Your task to perform on an android device: open app "Lyft - Rideshare, Bikes, Scooters & Transit" (install if not already installed) and go to login screen Image 0: 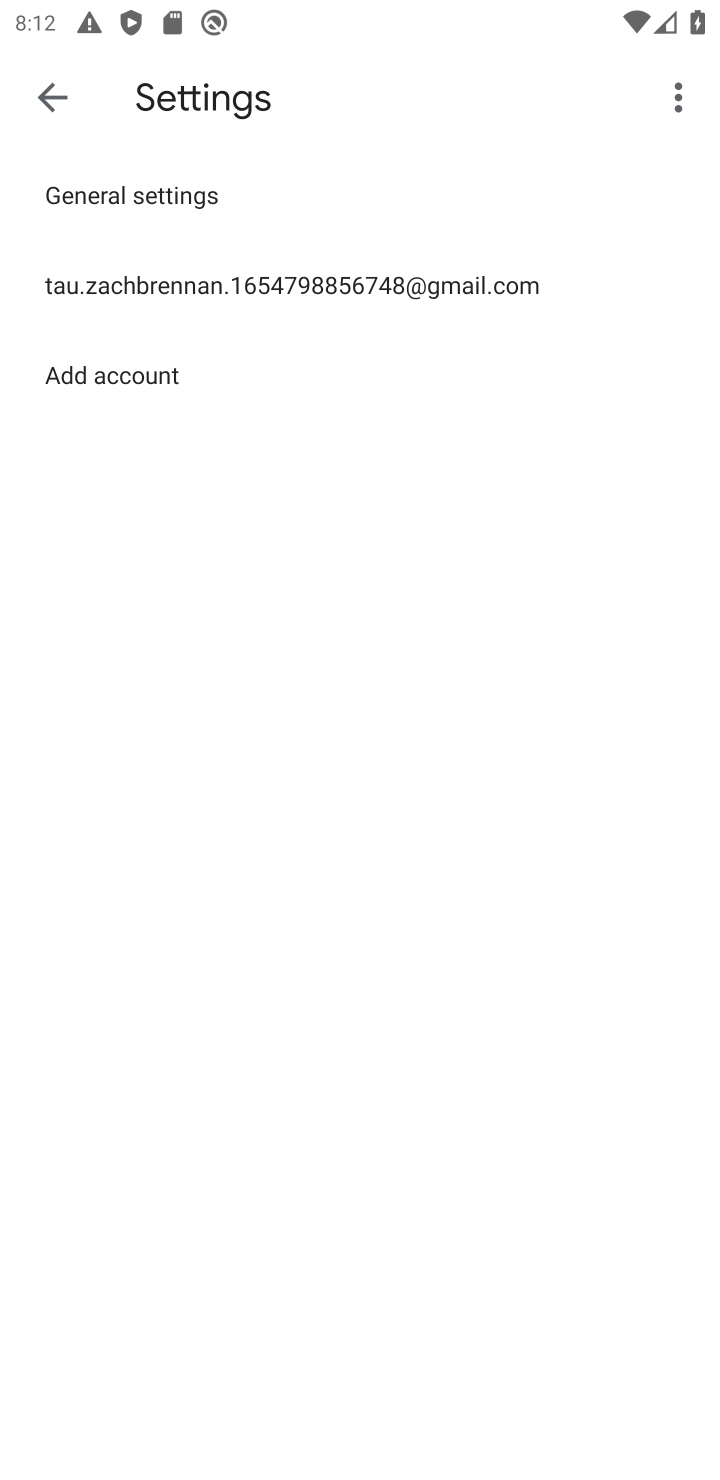
Step 0: press home button
Your task to perform on an android device: open app "Lyft - Rideshare, Bikes, Scooters & Transit" (install if not already installed) and go to login screen Image 1: 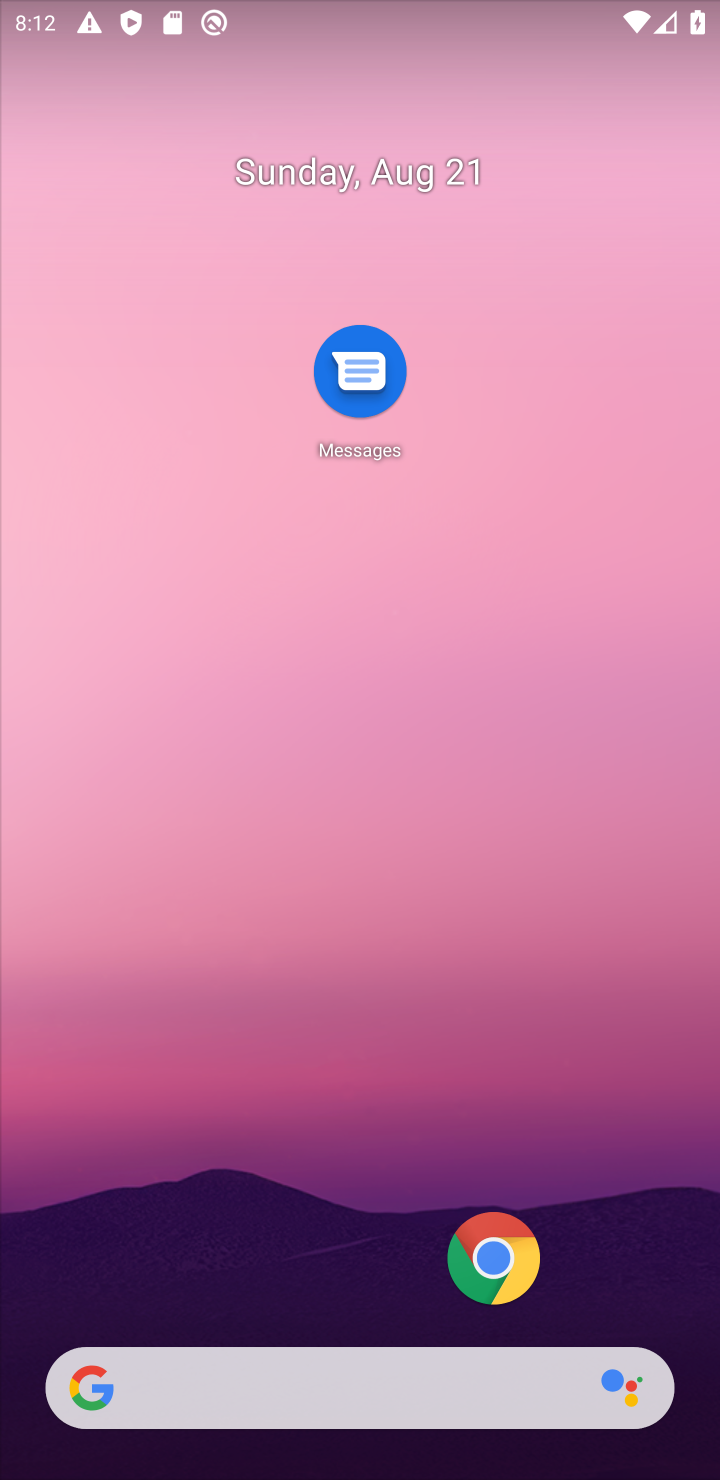
Step 1: drag from (202, 1355) to (317, 0)
Your task to perform on an android device: open app "Lyft - Rideshare, Bikes, Scooters & Transit" (install if not already installed) and go to login screen Image 2: 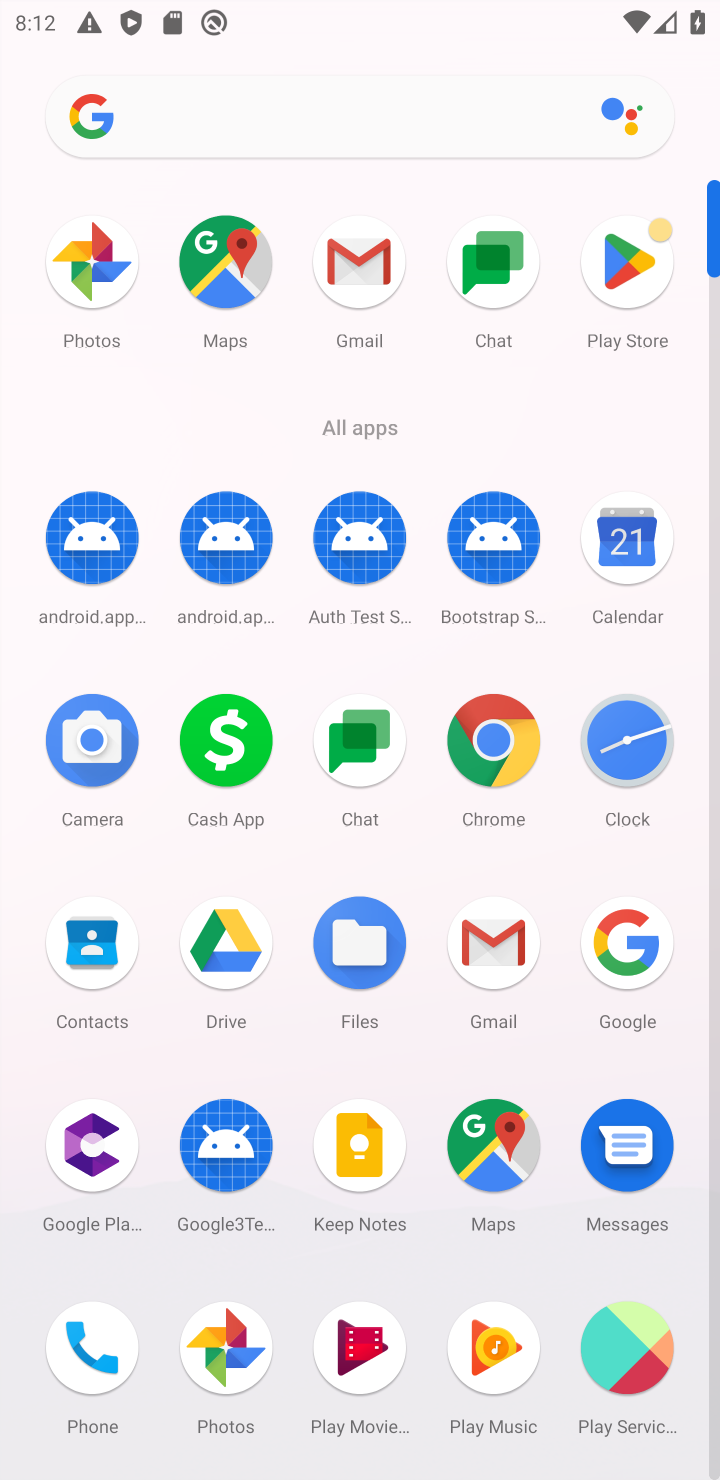
Step 2: click (629, 281)
Your task to perform on an android device: open app "Lyft - Rideshare, Bikes, Scooters & Transit" (install if not already installed) and go to login screen Image 3: 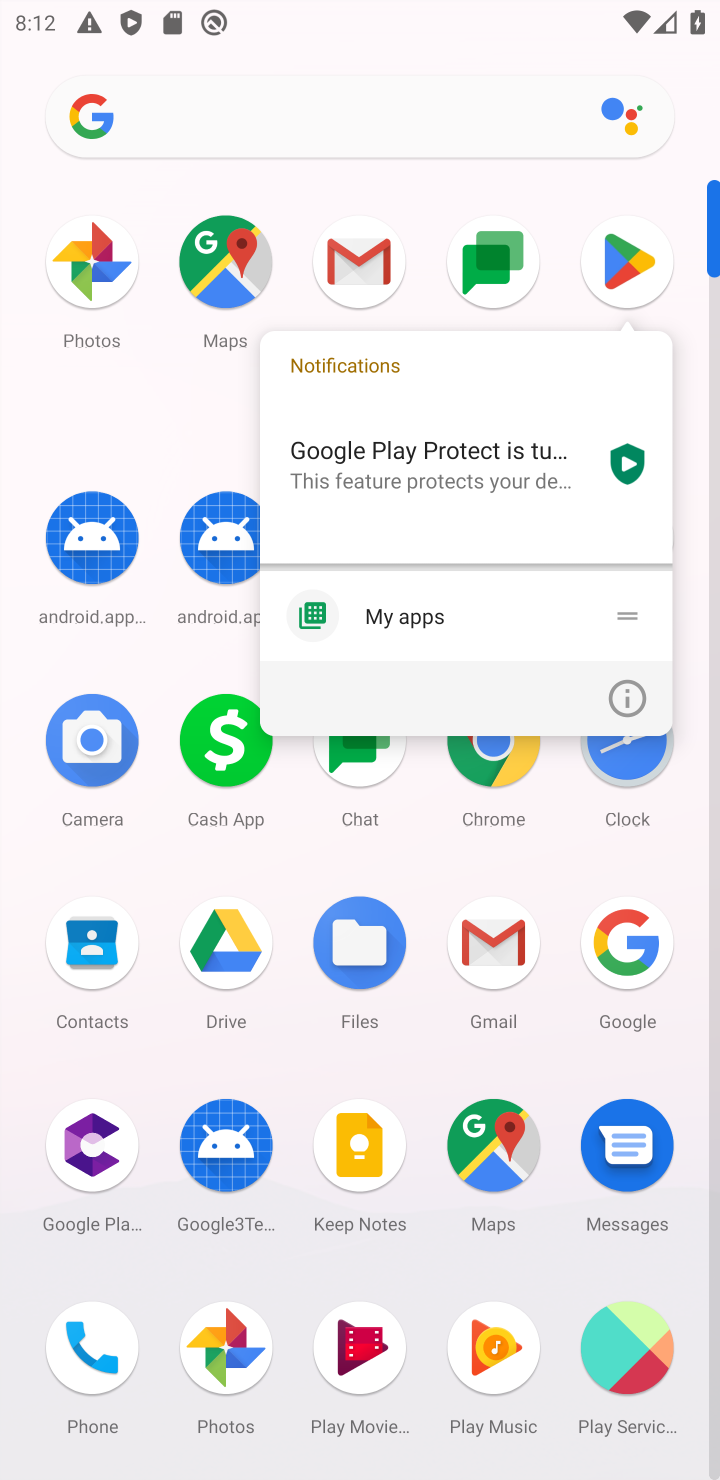
Step 3: click (618, 269)
Your task to perform on an android device: open app "Lyft - Rideshare, Bikes, Scooters & Transit" (install if not already installed) and go to login screen Image 4: 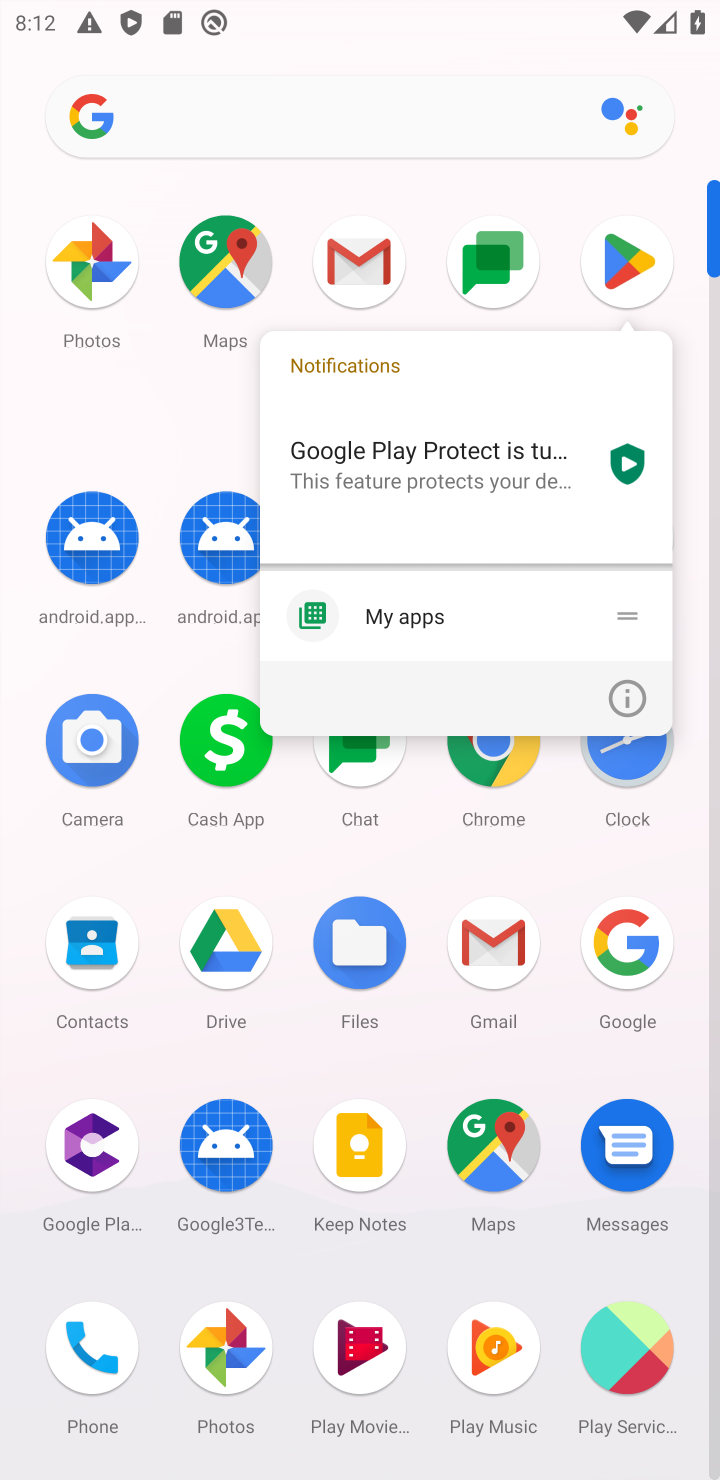
Step 4: click (618, 269)
Your task to perform on an android device: open app "Lyft - Rideshare, Bikes, Scooters & Transit" (install if not already installed) and go to login screen Image 5: 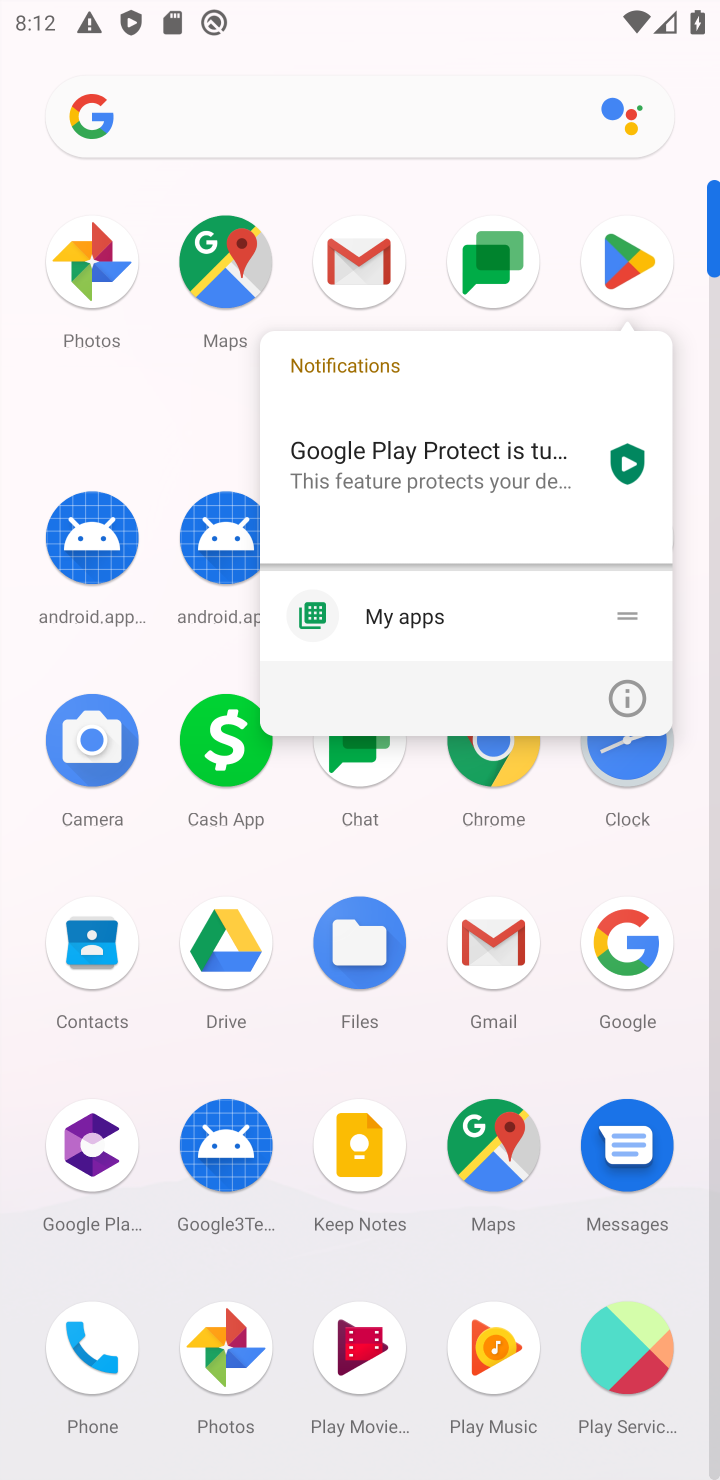
Step 5: click (618, 270)
Your task to perform on an android device: open app "Lyft - Rideshare, Bikes, Scooters & Transit" (install if not already installed) and go to login screen Image 6: 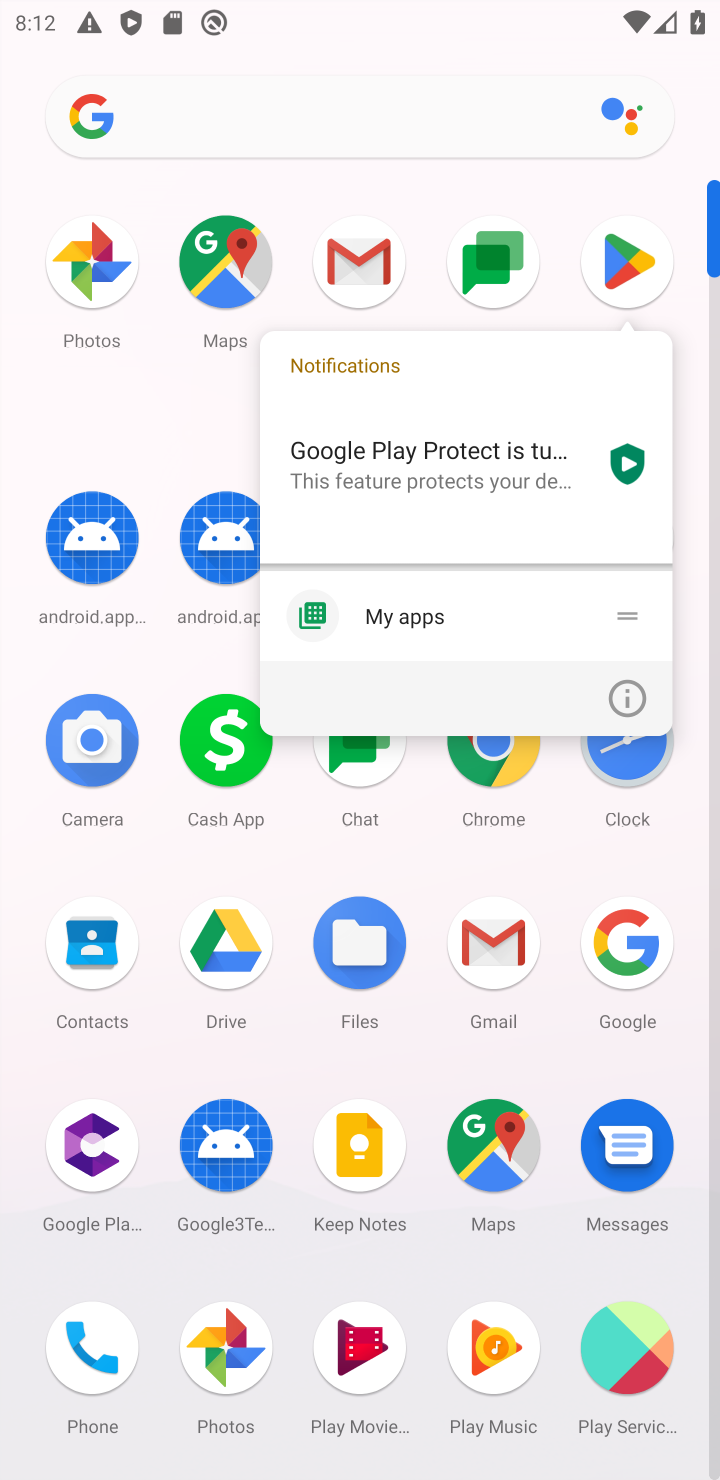
Step 6: click (618, 272)
Your task to perform on an android device: open app "Lyft - Rideshare, Bikes, Scooters & Transit" (install if not already installed) and go to login screen Image 7: 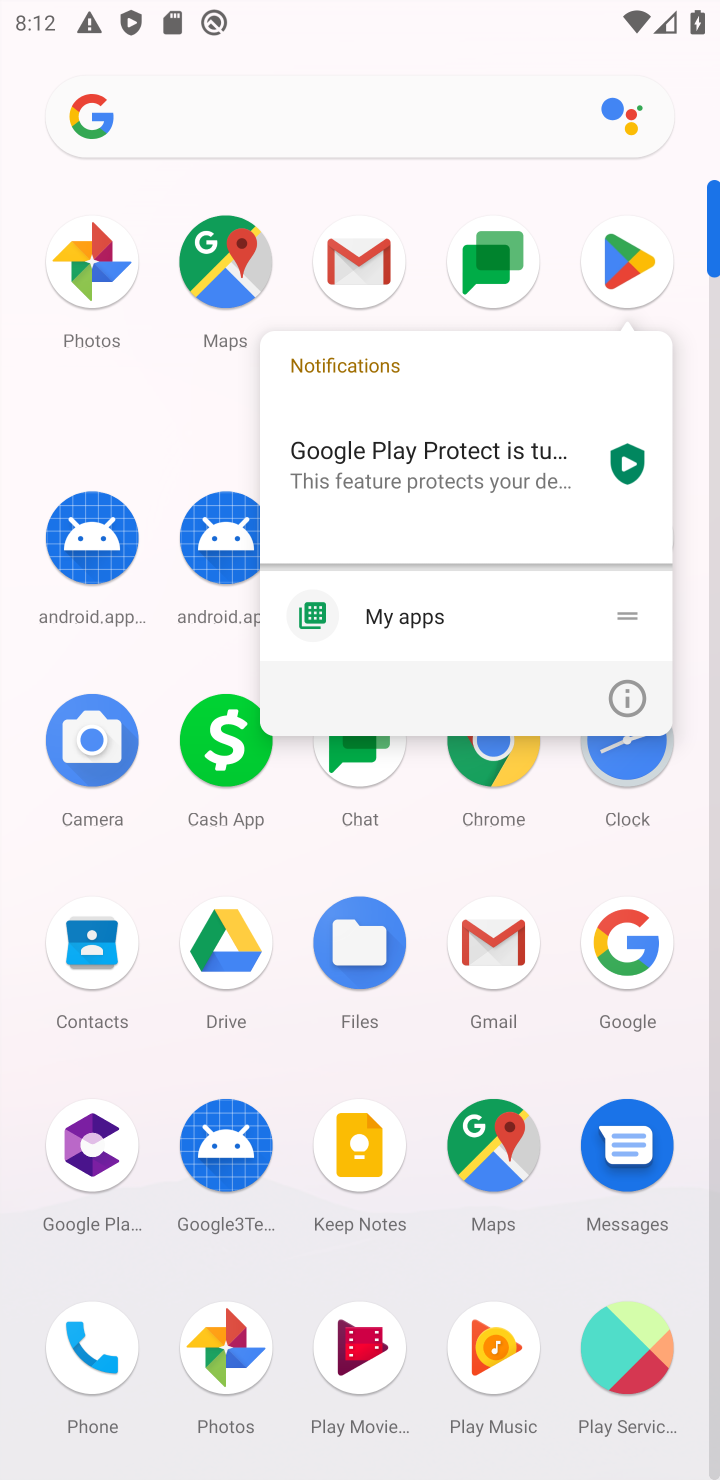
Step 7: click (618, 272)
Your task to perform on an android device: open app "Lyft - Rideshare, Bikes, Scooters & Transit" (install if not already installed) and go to login screen Image 8: 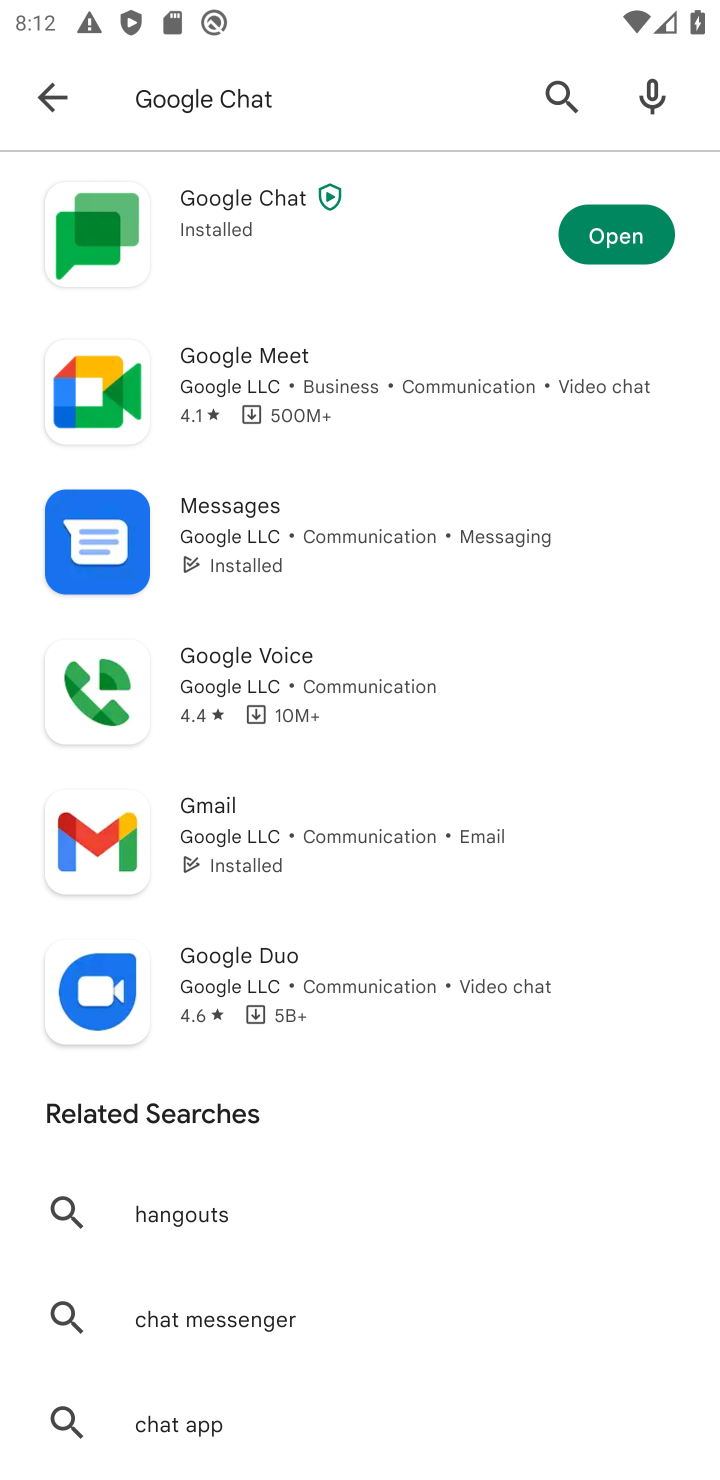
Step 8: press back button
Your task to perform on an android device: open app "Lyft - Rideshare, Bikes, Scooters & Transit" (install if not already installed) and go to login screen Image 9: 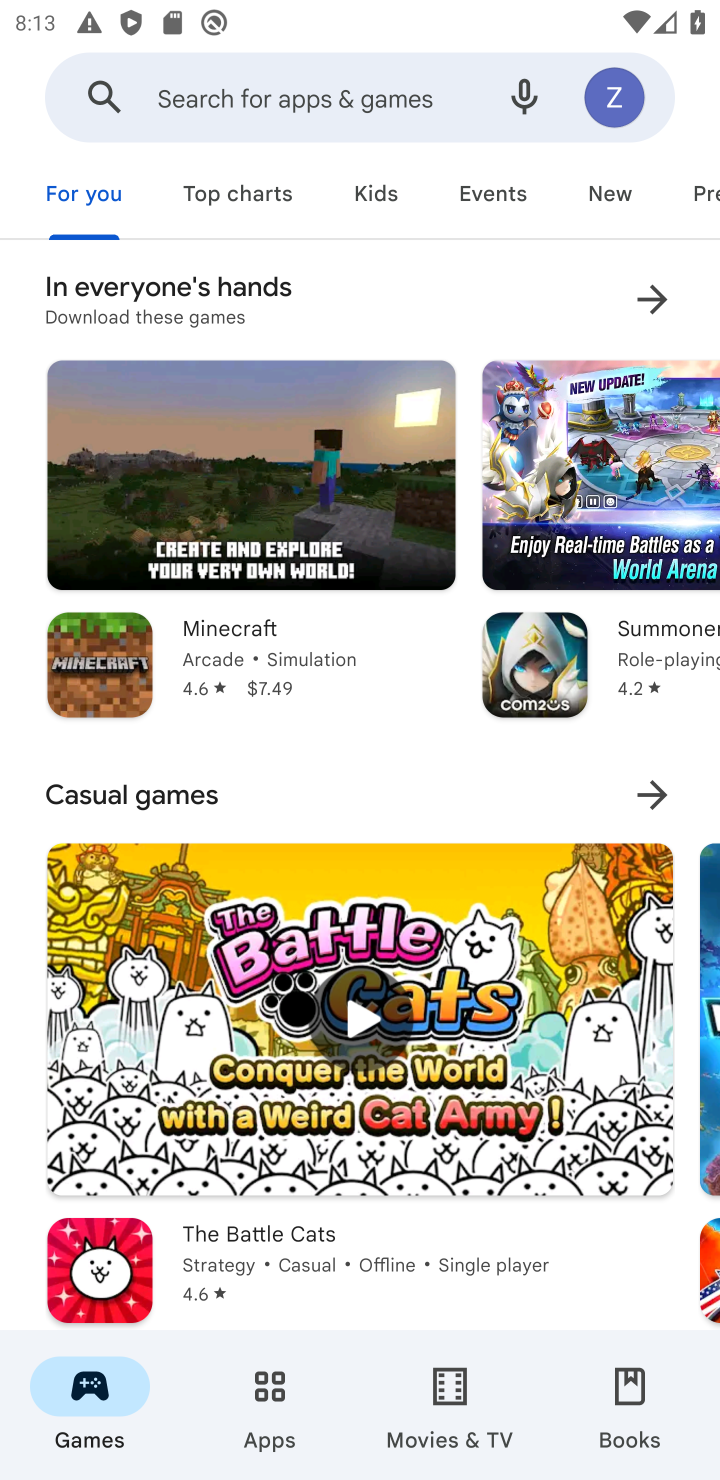
Step 9: click (140, 112)
Your task to perform on an android device: open app "Lyft - Rideshare, Bikes, Scooters & Transit" (install if not already installed) and go to login screen Image 10: 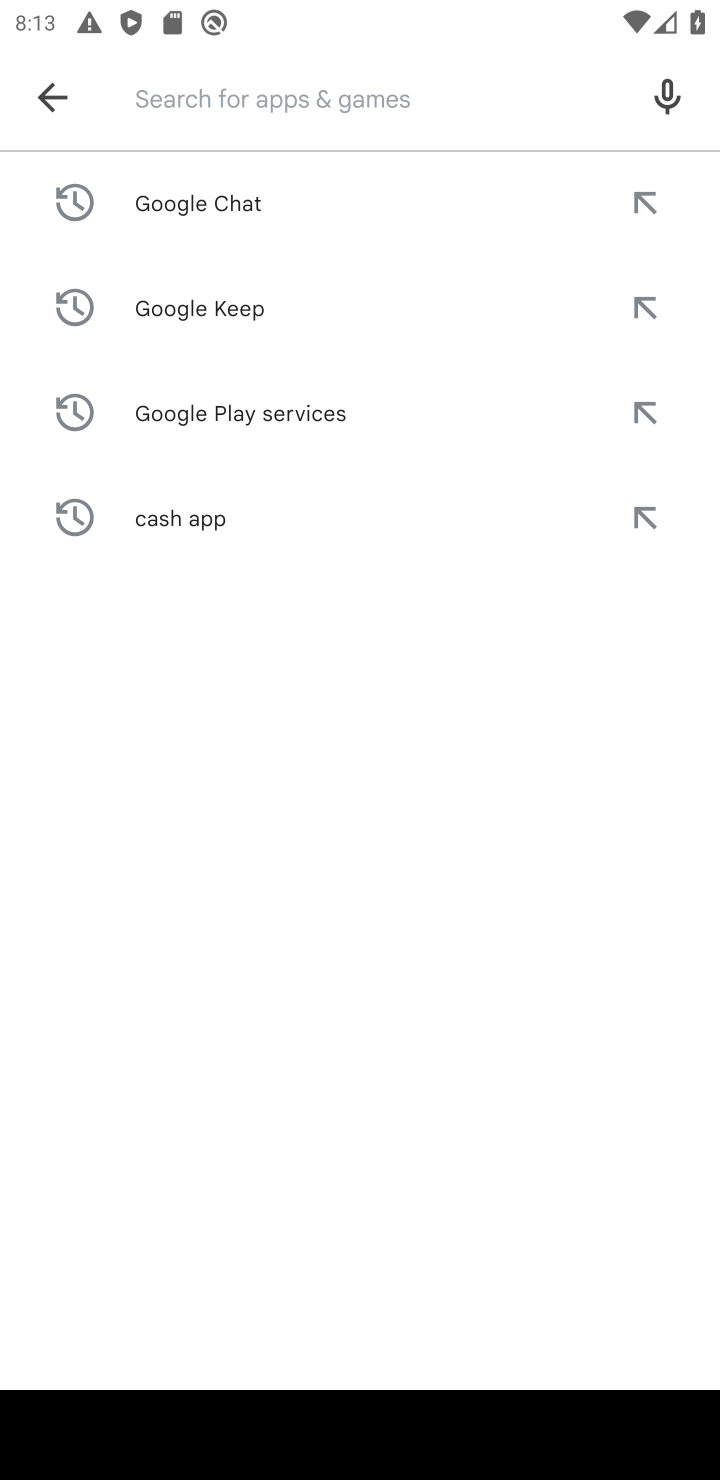
Step 10: type "Lyft - Rideshare, Bikes, Scooters & Transit"
Your task to perform on an android device: open app "Lyft - Rideshare, Bikes, Scooters & Transit" (install if not already installed) and go to login screen Image 11: 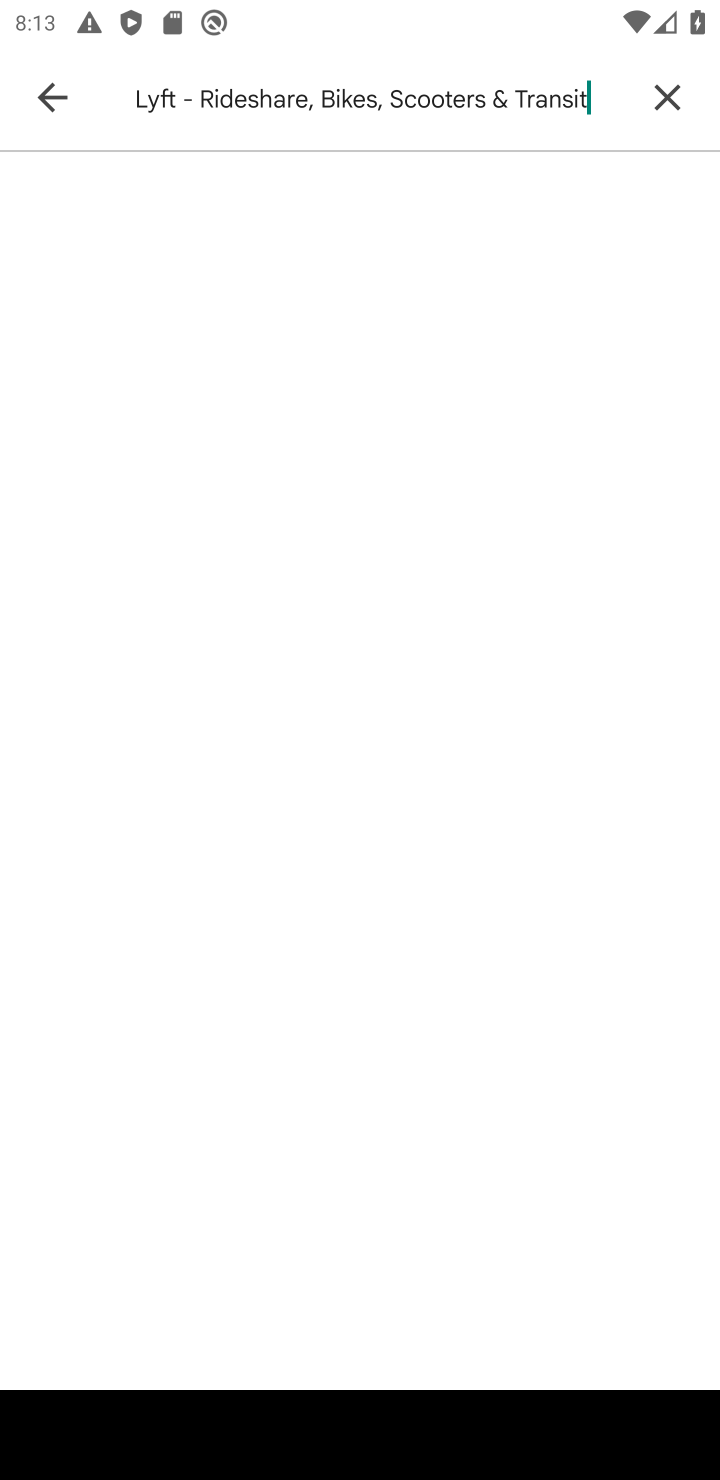
Step 11: press enter
Your task to perform on an android device: open app "Lyft - Rideshare, Bikes, Scooters & Transit" (install if not already installed) and go to login screen Image 12: 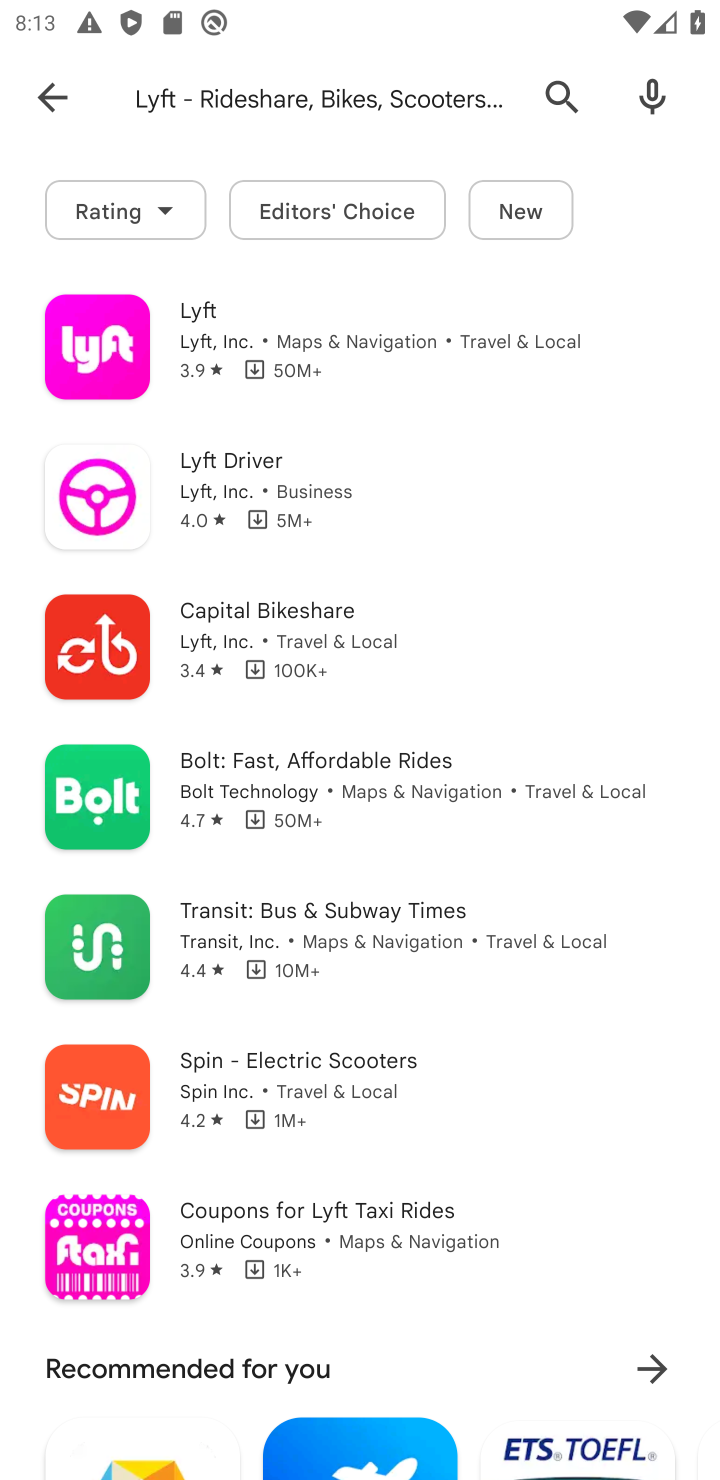
Step 12: click (261, 370)
Your task to perform on an android device: open app "Lyft - Rideshare, Bikes, Scooters & Transit" (install if not already installed) and go to login screen Image 13: 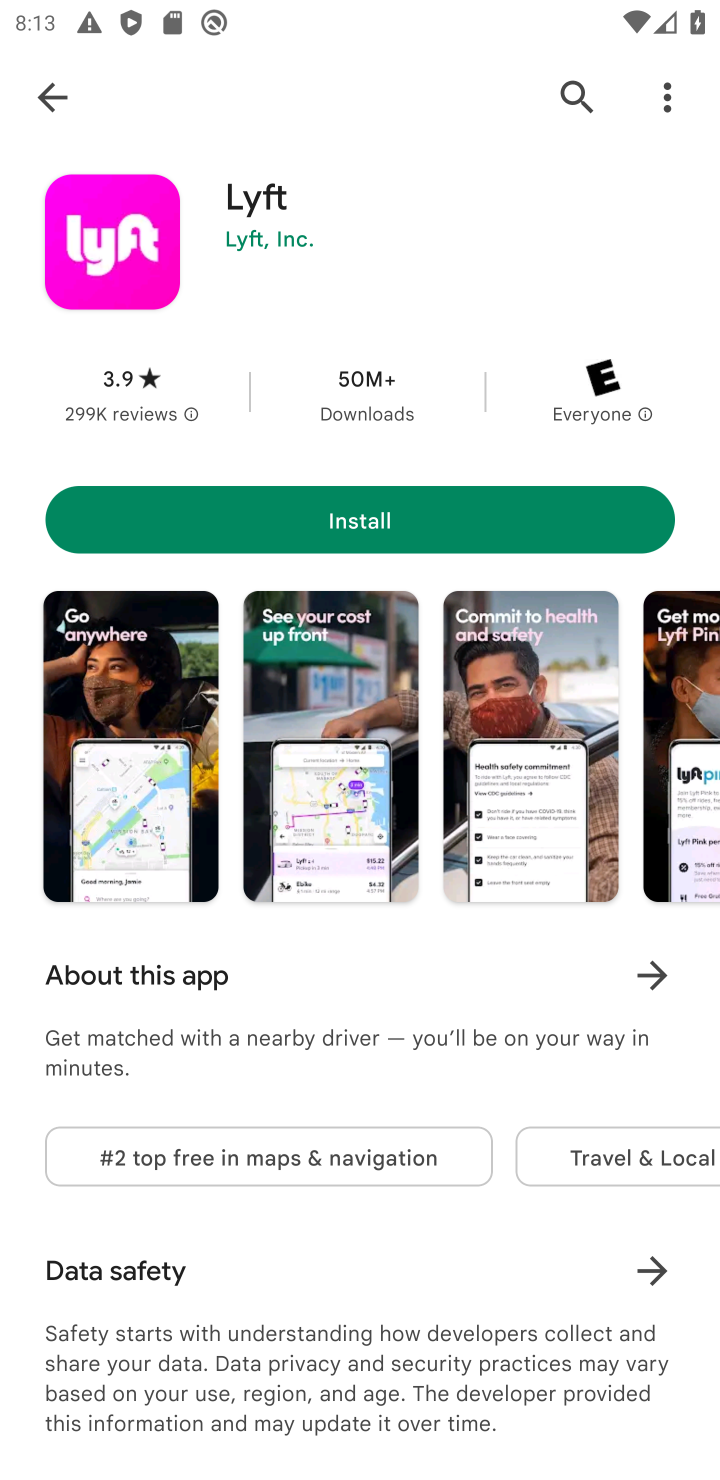
Step 13: click (405, 533)
Your task to perform on an android device: open app "Lyft - Rideshare, Bikes, Scooters & Transit" (install if not already installed) and go to login screen Image 14: 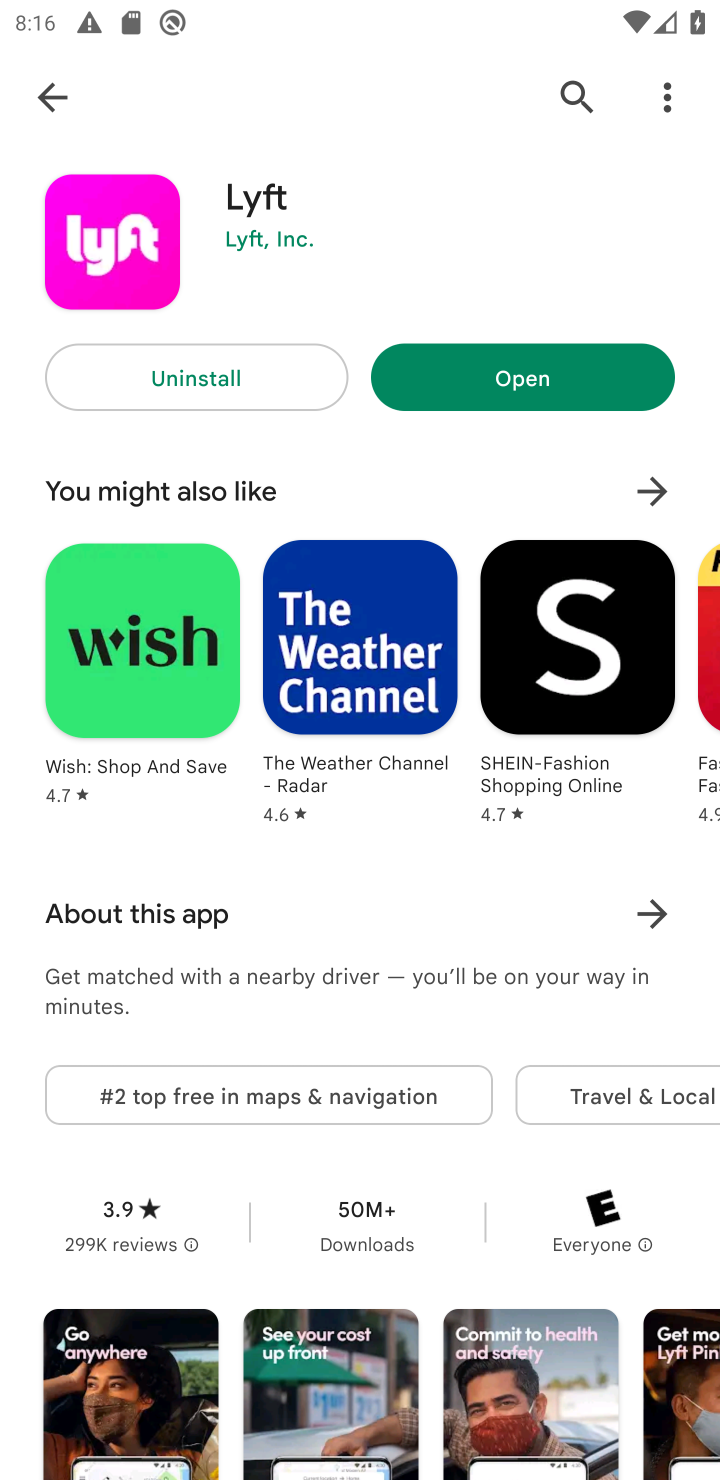
Step 14: click (510, 377)
Your task to perform on an android device: open app "Lyft - Rideshare, Bikes, Scooters & Transit" (install if not already installed) and go to login screen Image 15: 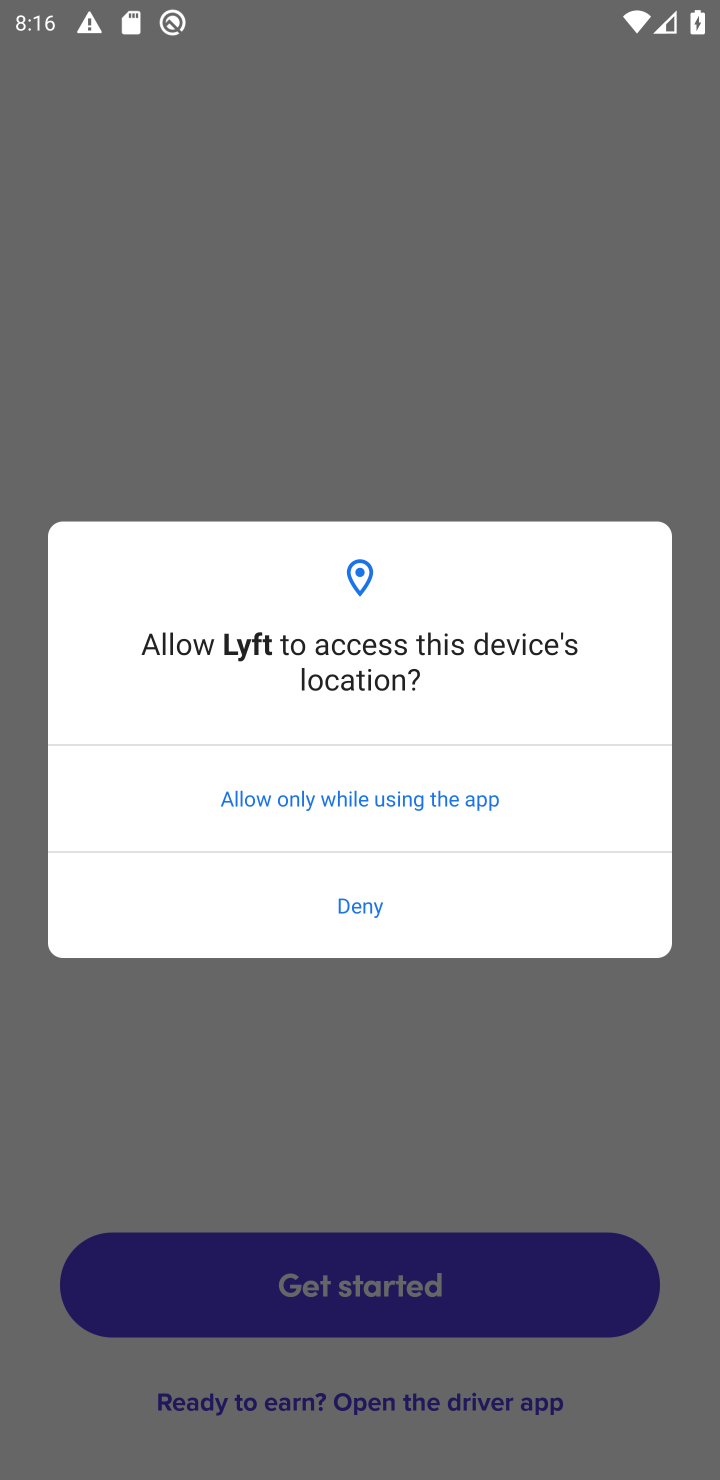
Step 15: click (322, 809)
Your task to perform on an android device: open app "Lyft - Rideshare, Bikes, Scooters & Transit" (install if not already installed) and go to login screen Image 16: 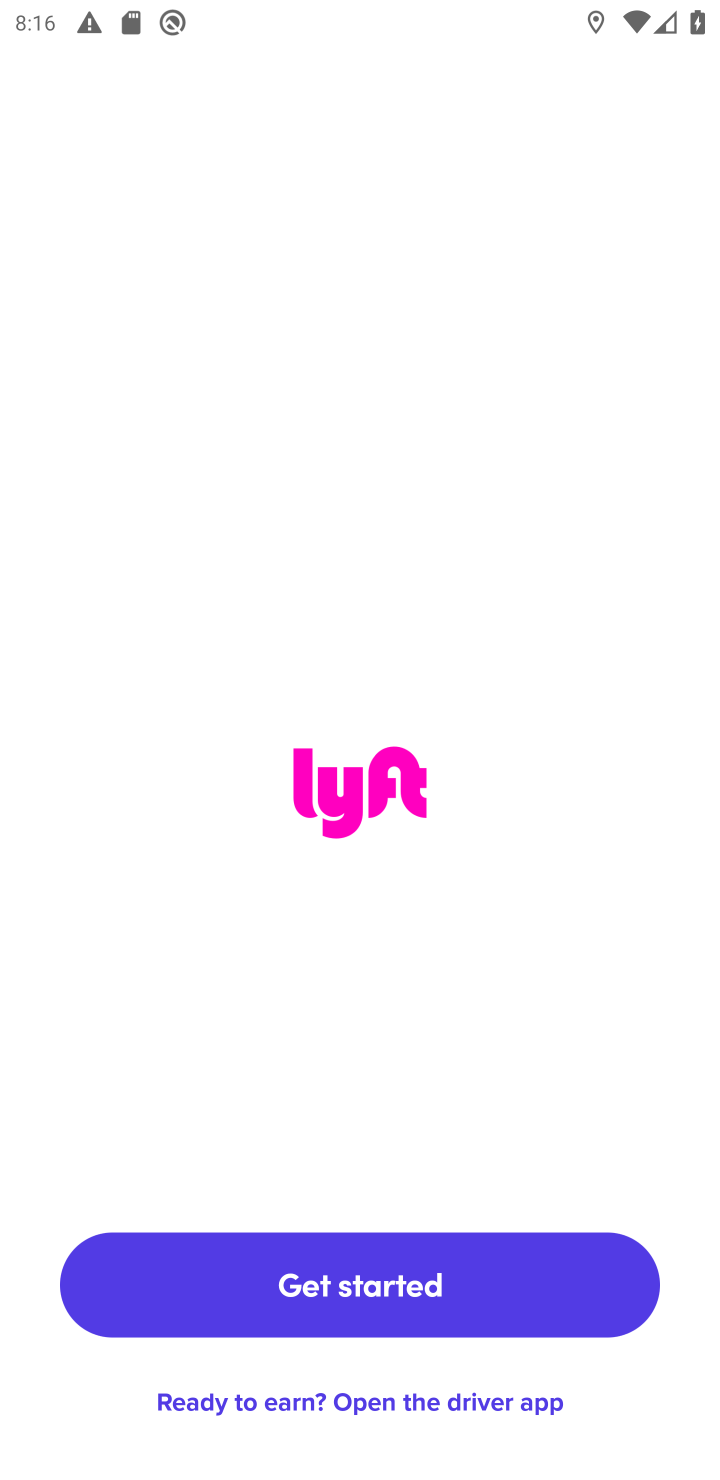
Step 16: click (383, 1289)
Your task to perform on an android device: open app "Lyft - Rideshare, Bikes, Scooters & Transit" (install if not already installed) and go to login screen Image 17: 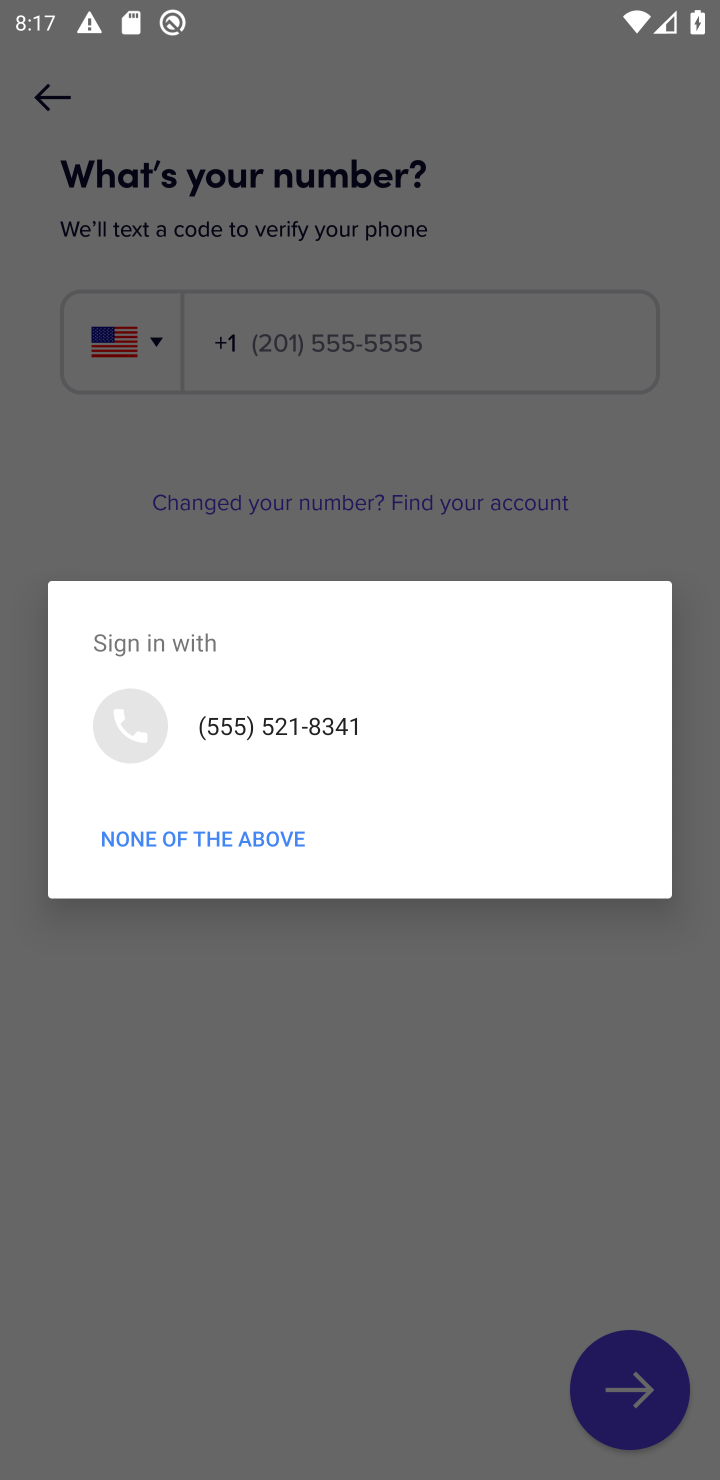
Step 17: task complete